Your task to perform on an android device: all mails in gmail Image 0: 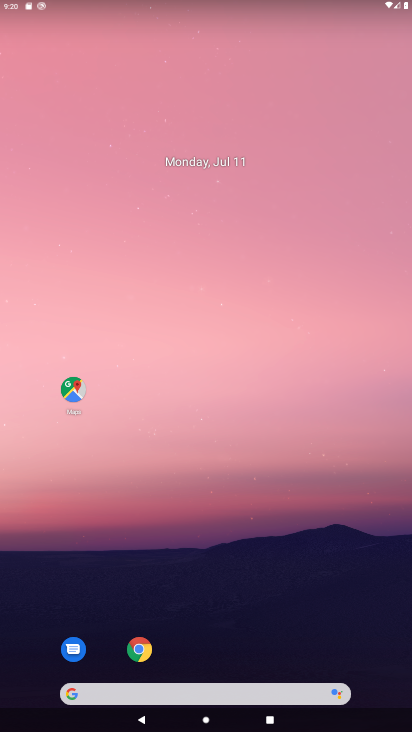
Step 0: drag from (240, 585) to (219, 192)
Your task to perform on an android device: all mails in gmail Image 1: 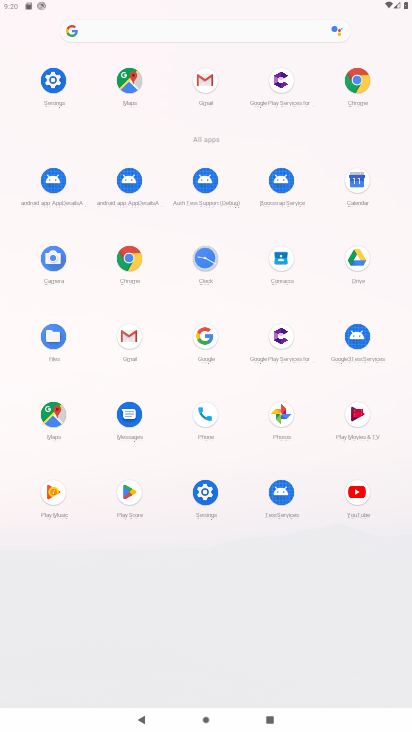
Step 1: click (203, 86)
Your task to perform on an android device: all mails in gmail Image 2: 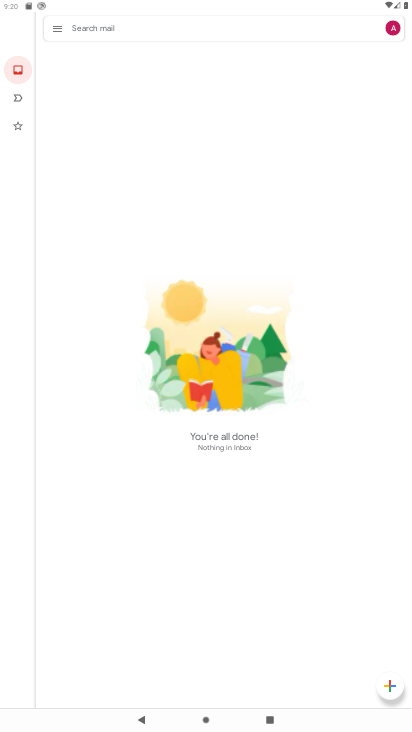
Step 2: click (52, 25)
Your task to perform on an android device: all mails in gmail Image 3: 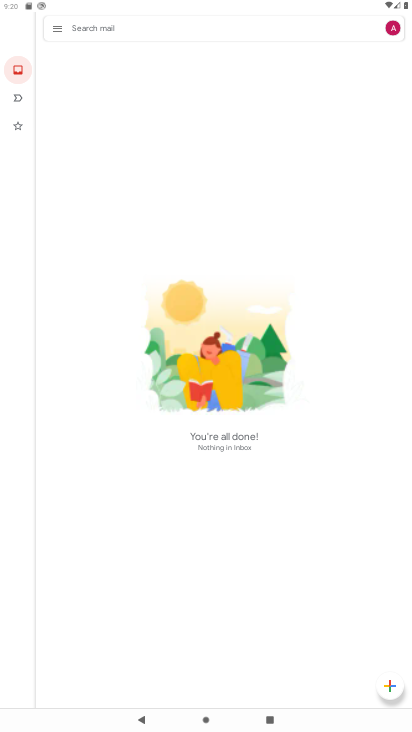
Step 3: click (60, 33)
Your task to perform on an android device: all mails in gmail Image 4: 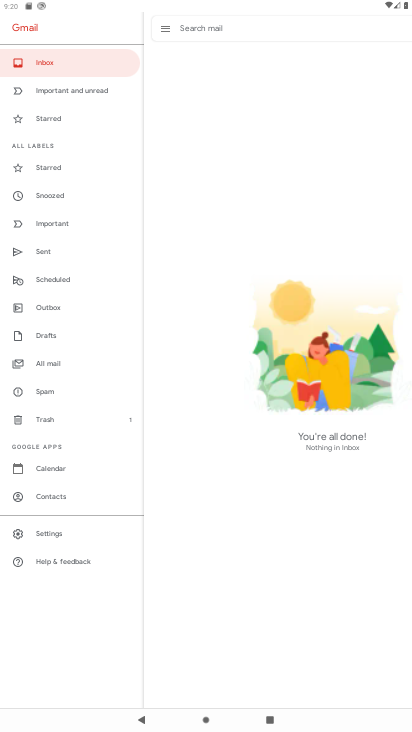
Step 4: click (91, 360)
Your task to perform on an android device: all mails in gmail Image 5: 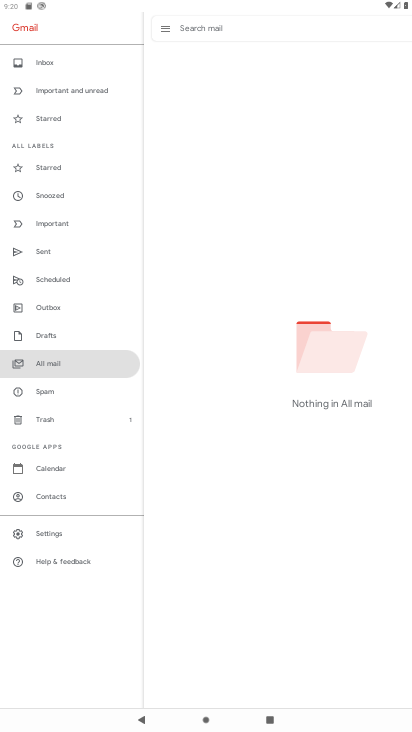
Step 5: task complete